Your task to perform on an android device: set an alarm Image 0: 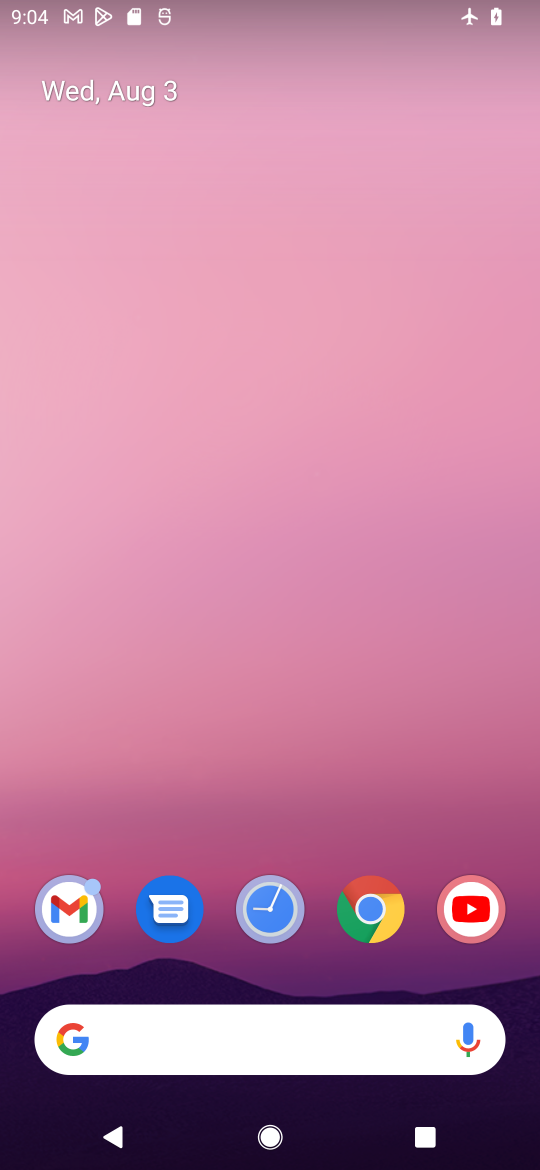
Step 0: press home button
Your task to perform on an android device: set an alarm Image 1: 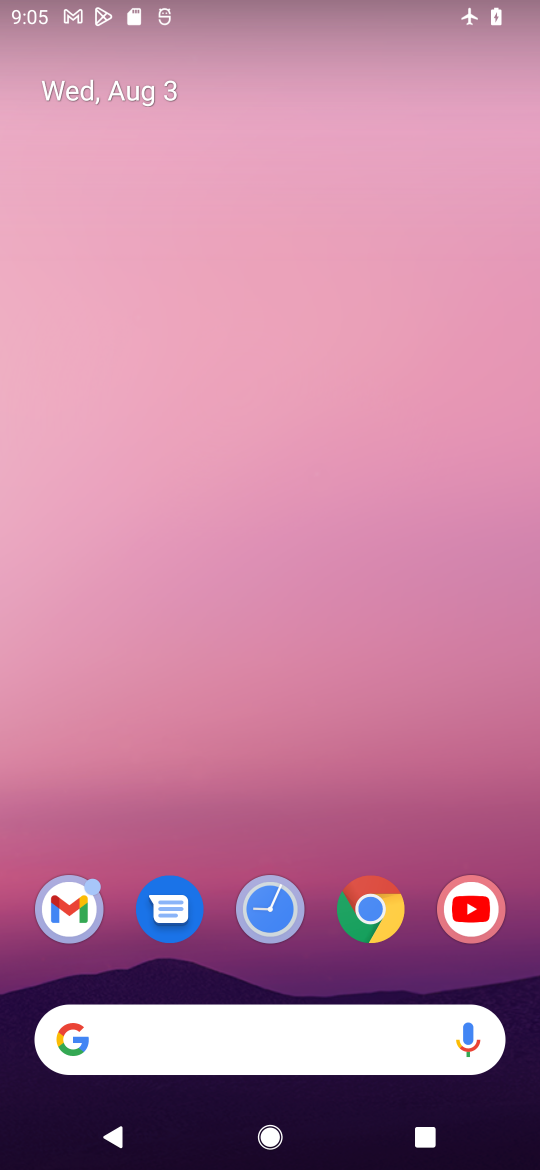
Step 1: drag from (417, 816) to (374, 217)
Your task to perform on an android device: set an alarm Image 2: 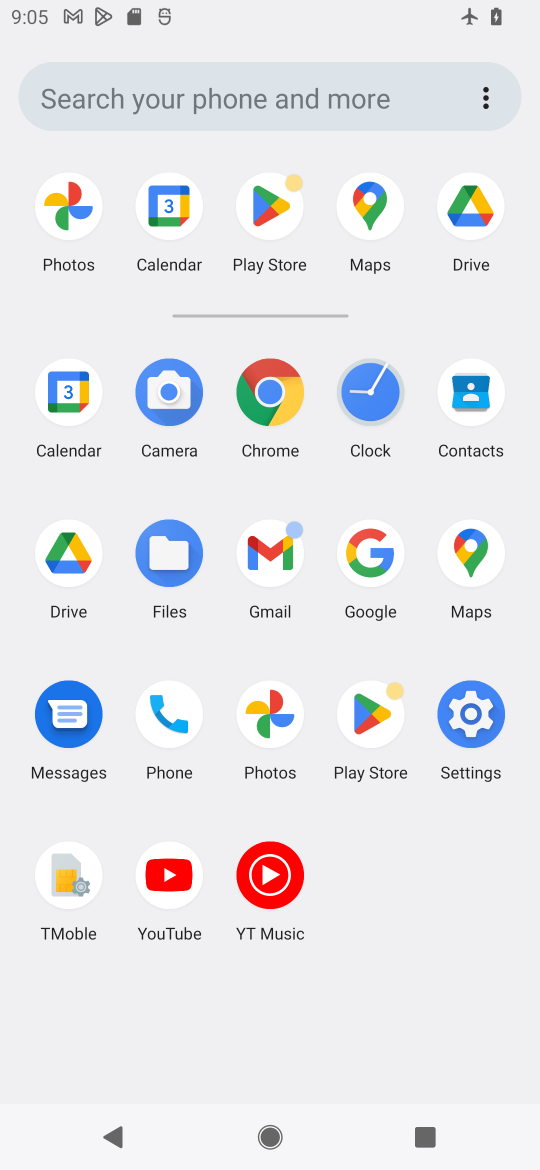
Step 2: click (381, 407)
Your task to perform on an android device: set an alarm Image 3: 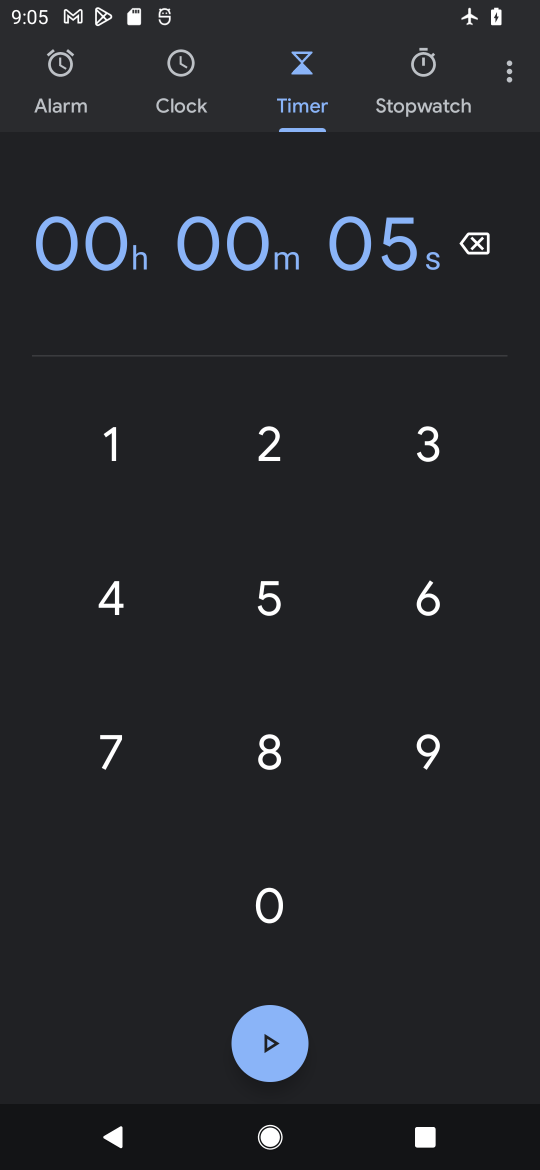
Step 3: click (64, 86)
Your task to perform on an android device: set an alarm Image 4: 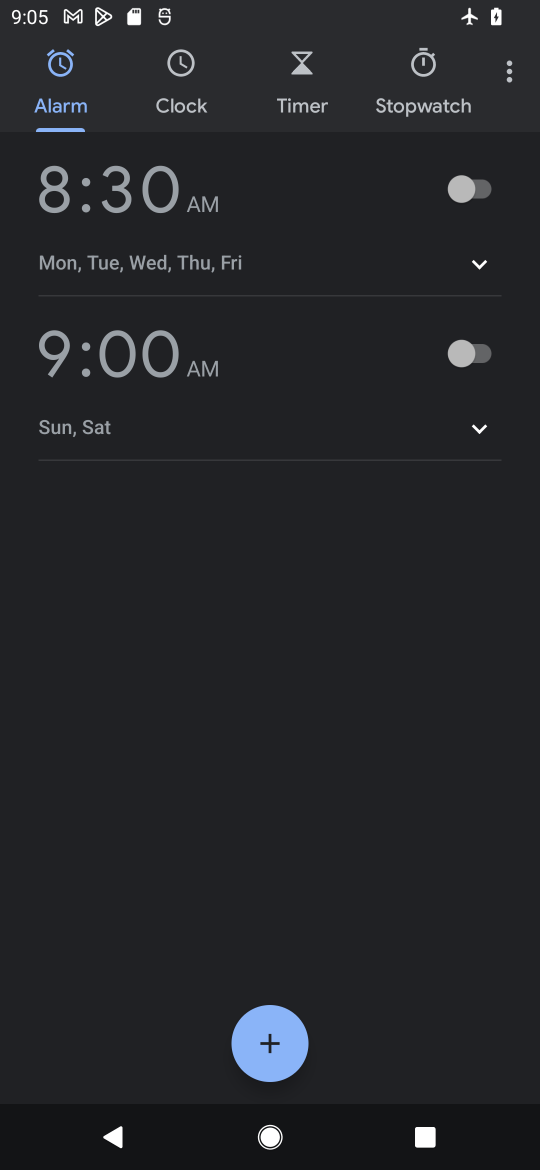
Step 4: click (274, 1030)
Your task to perform on an android device: set an alarm Image 5: 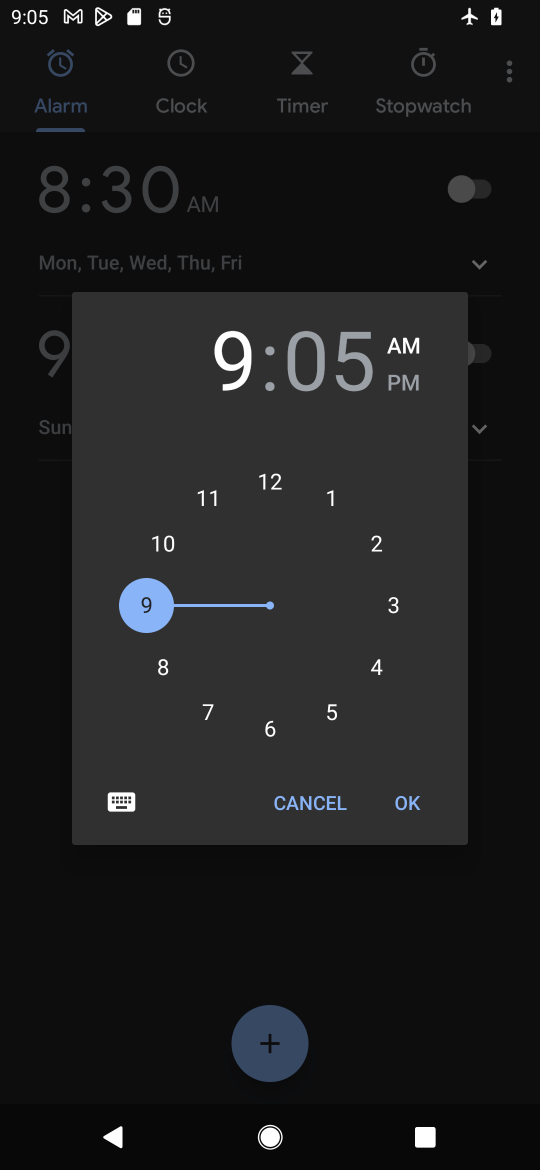
Step 5: click (408, 793)
Your task to perform on an android device: set an alarm Image 6: 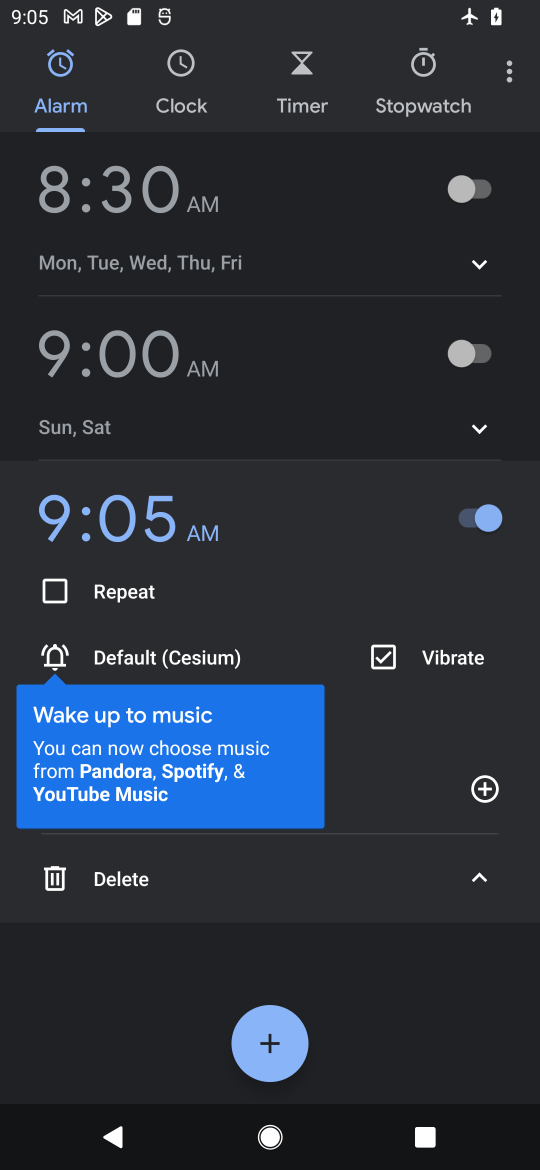
Step 6: task complete